Your task to perform on an android device: turn on the 12-hour format for clock Image 0: 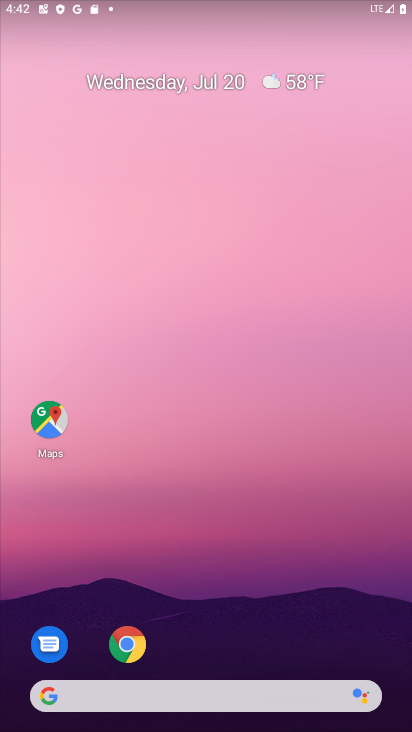
Step 0: press home button
Your task to perform on an android device: turn on the 12-hour format for clock Image 1: 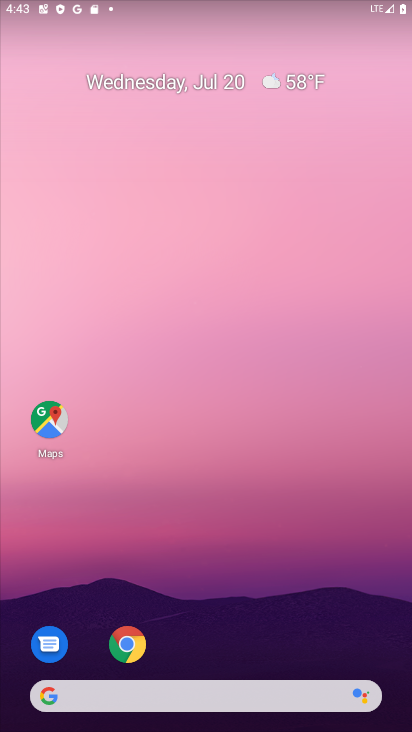
Step 1: drag from (257, 650) to (406, 10)
Your task to perform on an android device: turn on the 12-hour format for clock Image 2: 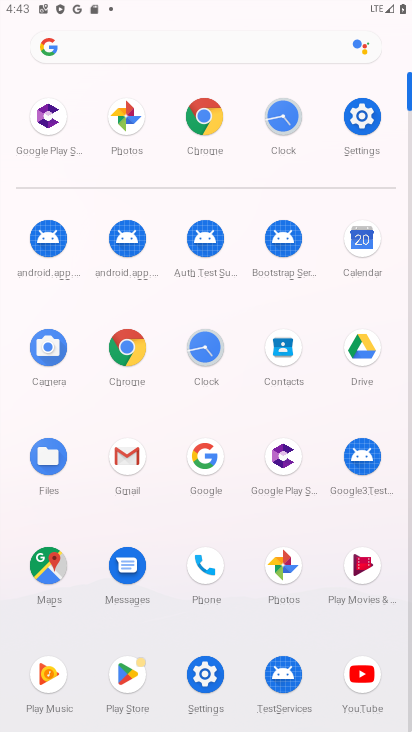
Step 2: click (363, 110)
Your task to perform on an android device: turn on the 12-hour format for clock Image 3: 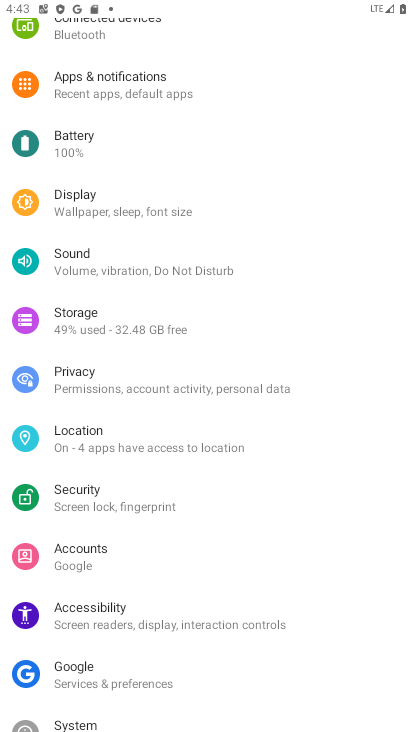
Step 3: drag from (289, 611) to (282, 217)
Your task to perform on an android device: turn on the 12-hour format for clock Image 4: 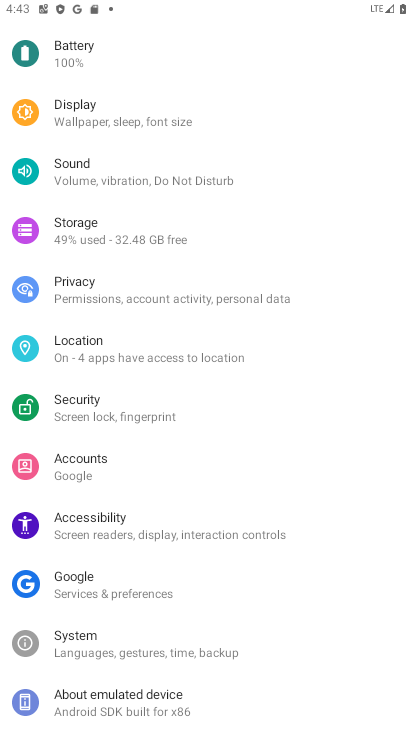
Step 4: click (90, 654)
Your task to perform on an android device: turn on the 12-hour format for clock Image 5: 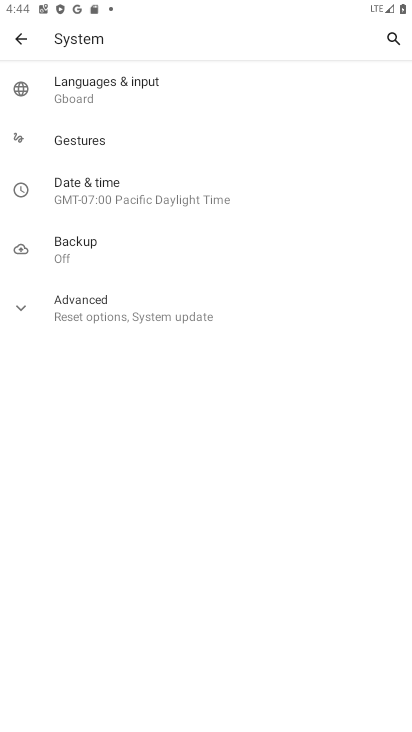
Step 5: click (98, 200)
Your task to perform on an android device: turn on the 12-hour format for clock Image 6: 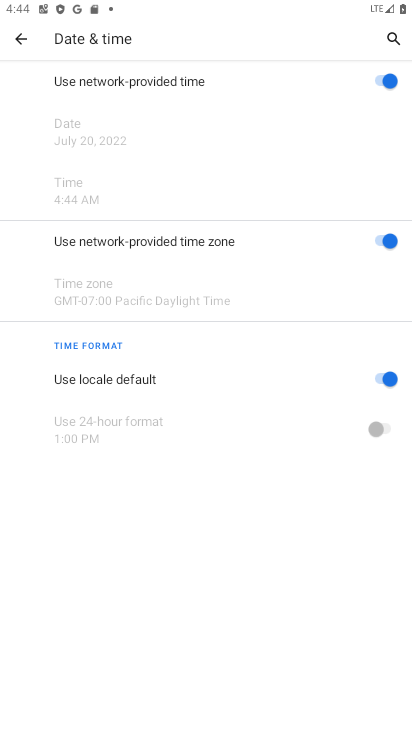
Step 6: click (397, 377)
Your task to perform on an android device: turn on the 12-hour format for clock Image 7: 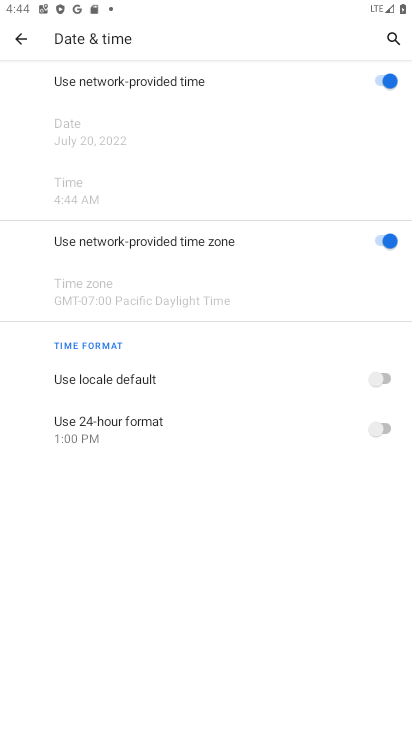
Step 7: task complete